Your task to perform on an android device: allow notifications from all sites in the chrome app Image 0: 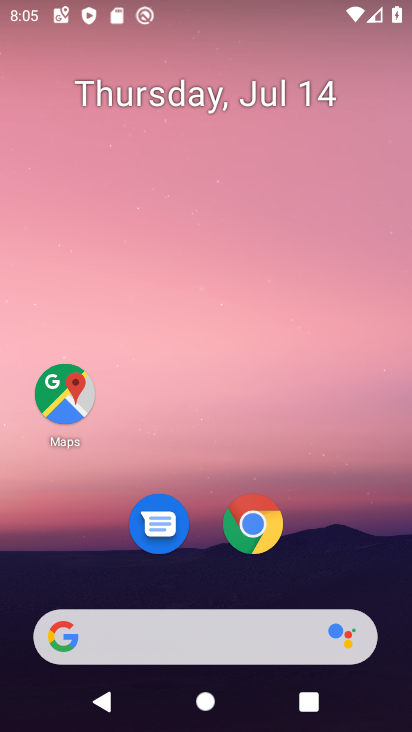
Step 0: click (262, 533)
Your task to perform on an android device: allow notifications from all sites in the chrome app Image 1: 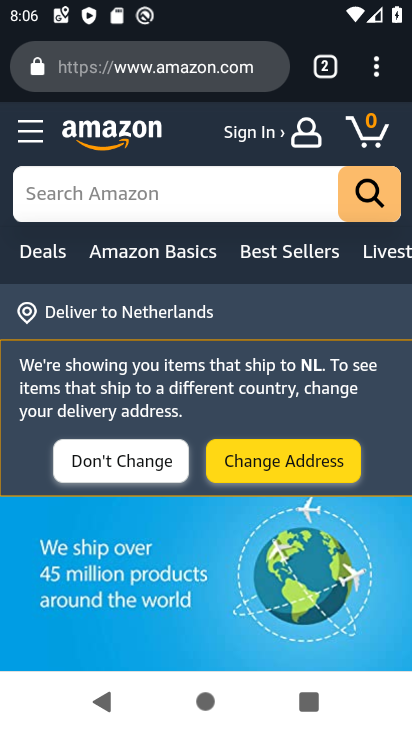
Step 1: click (374, 71)
Your task to perform on an android device: allow notifications from all sites in the chrome app Image 2: 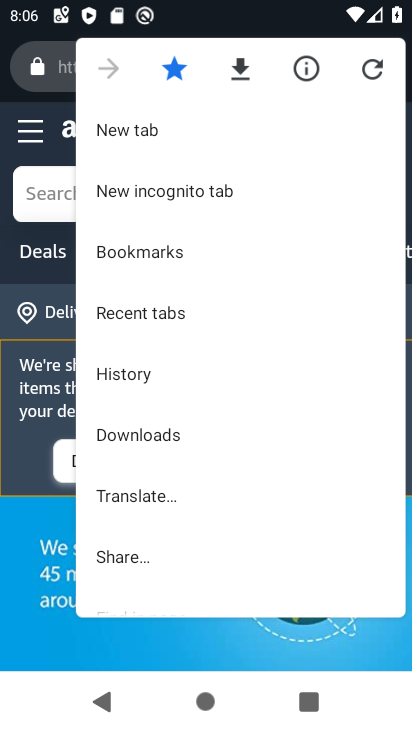
Step 2: drag from (254, 500) to (262, 138)
Your task to perform on an android device: allow notifications from all sites in the chrome app Image 3: 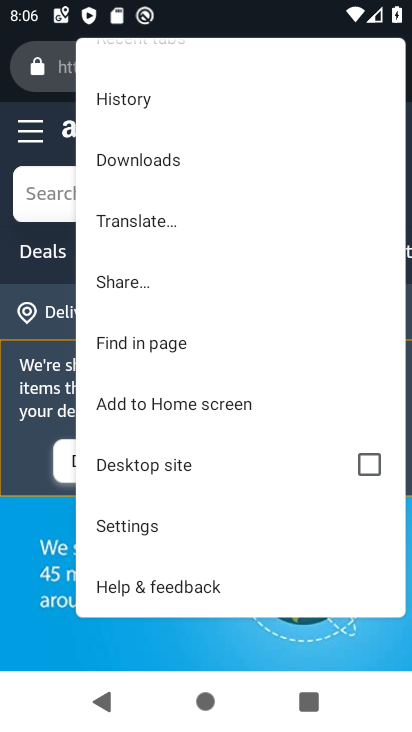
Step 3: click (135, 527)
Your task to perform on an android device: allow notifications from all sites in the chrome app Image 4: 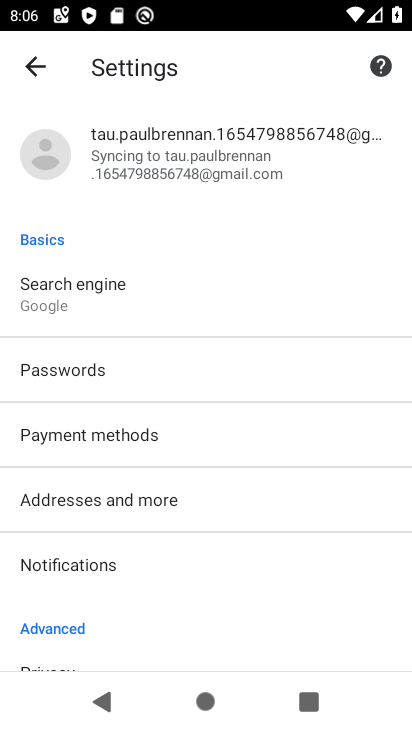
Step 4: click (113, 566)
Your task to perform on an android device: allow notifications from all sites in the chrome app Image 5: 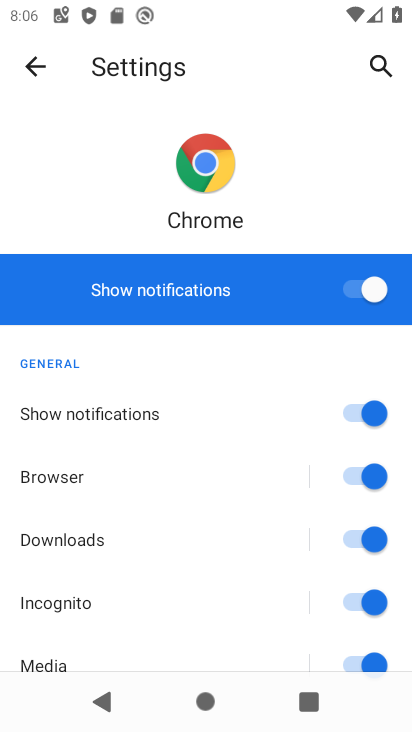
Step 5: task complete